Your task to perform on an android device: What's the weather? Image 0: 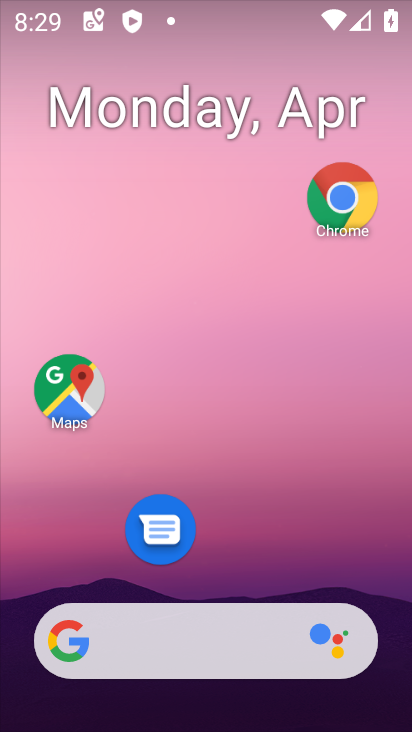
Step 0: drag from (185, 307) to (312, 326)
Your task to perform on an android device: What's the weather? Image 1: 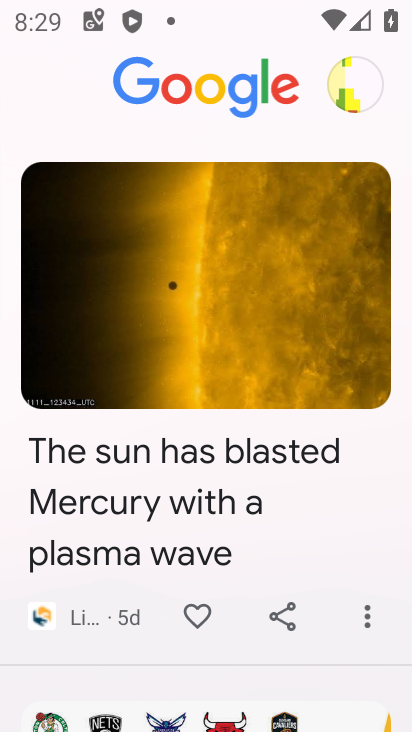
Step 1: drag from (264, 414) to (59, 410)
Your task to perform on an android device: What's the weather? Image 2: 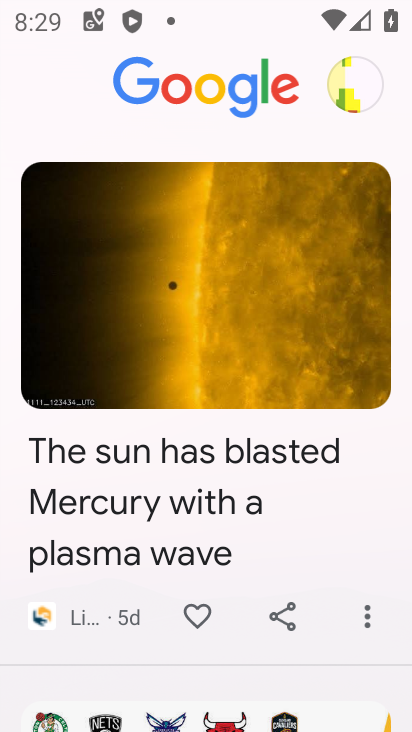
Step 2: drag from (390, 445) to (10, 449)
Your task to perform on an android device: What's the weather? Image 3: 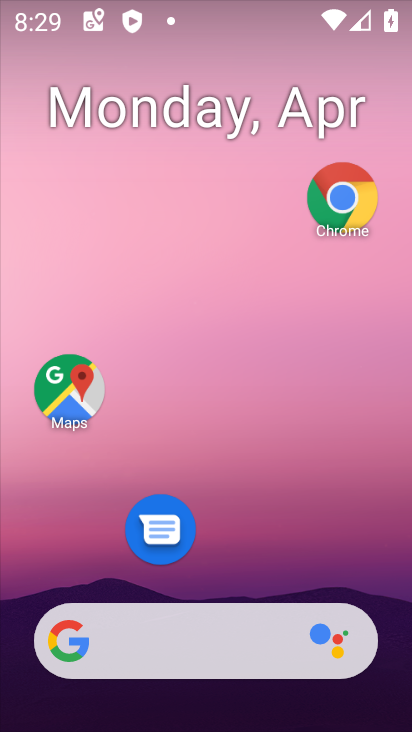
Step 3: click (216, 648)
Your task to perform on an android device: What's the weather? Image 4: 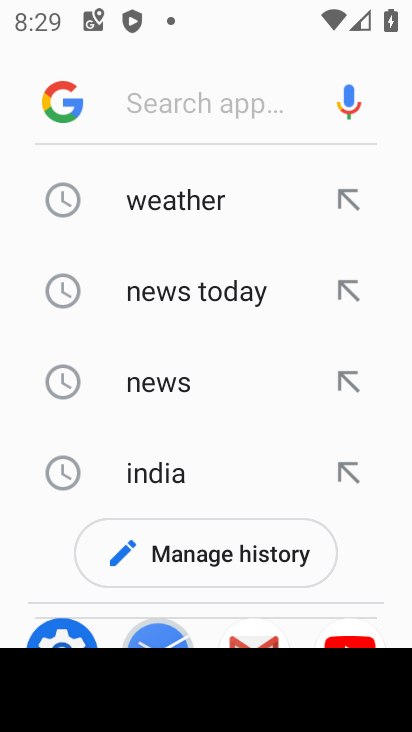
Step 4: click (173, 211)
Your task to perform on an android device: What's the weather? Image 5: 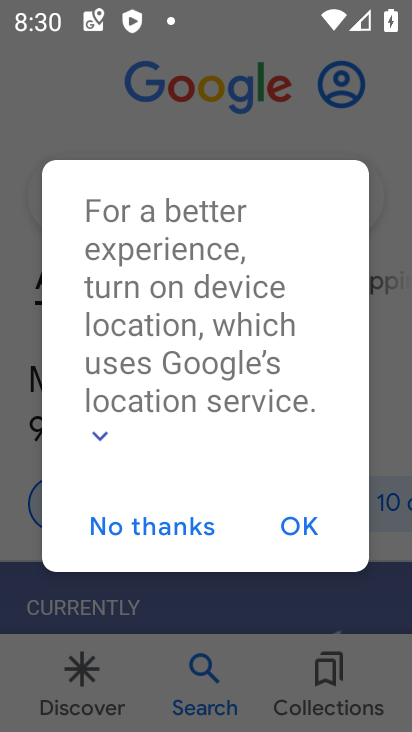
Step 5: click (305, 540)
Your task to perform on an android device: What's the weather? Image 6: 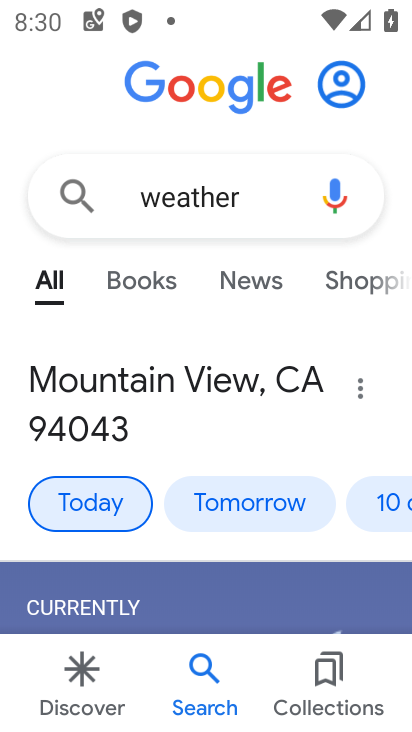
Step 6: task complete